Your task to perform on an android device: Set the phone to "Do not disturb". Image 0: 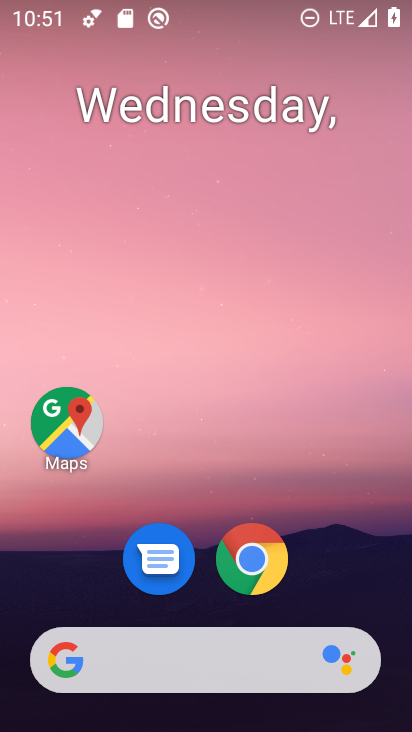
Step 0: drag from (361, 588) to (383, 240)
Your task to perform on an android device: Set the phone to "Do not disturb". Image 1: 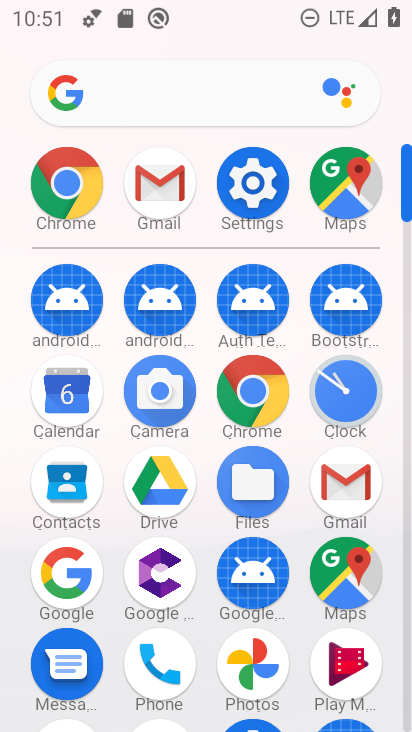
Step 1: click (264, 207)
Your task to perform on an android device: Set the phone to "Do not disturb". Image 2: 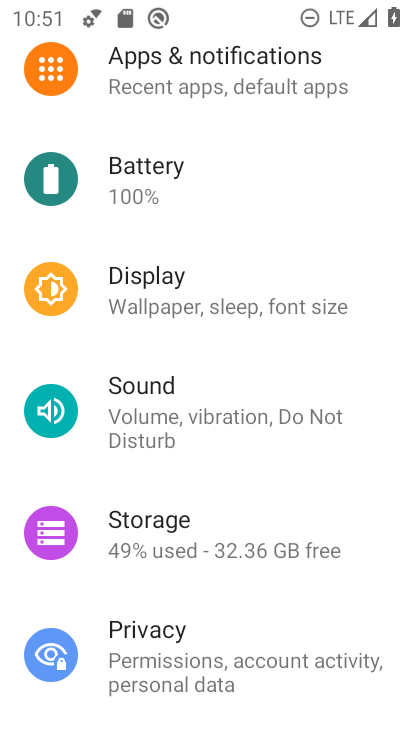
Step 2: drag from (343, 205) to (351, 346)
Your task to perform on an android device: Set the phone to "Do not disturb". Image 3: 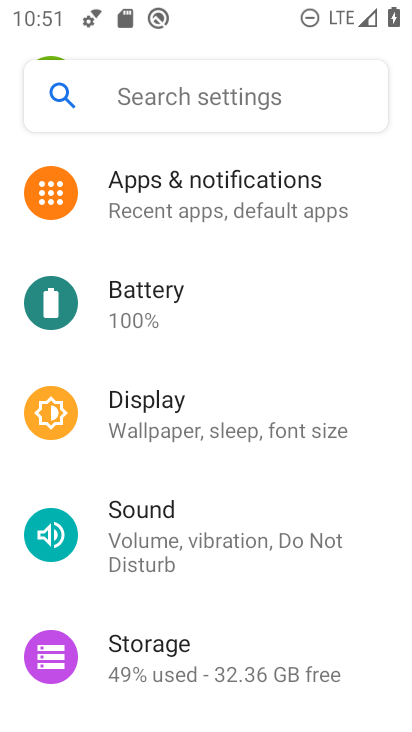
Step 3: drag from (379, 184) to (352, 355)
Your task to perform on an android device: Set the phone to "Do not disturb". Image 4: 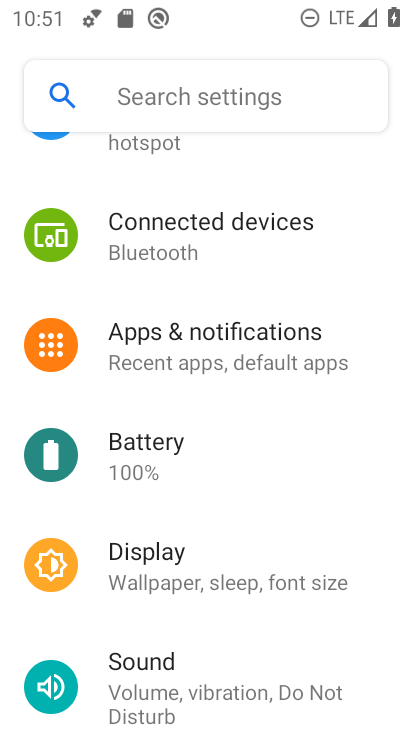
Step 4: drag from (361, 258) to (376, 410)
Your task to perform on an android device: Set the phone to "Do not disturb". Image 5: 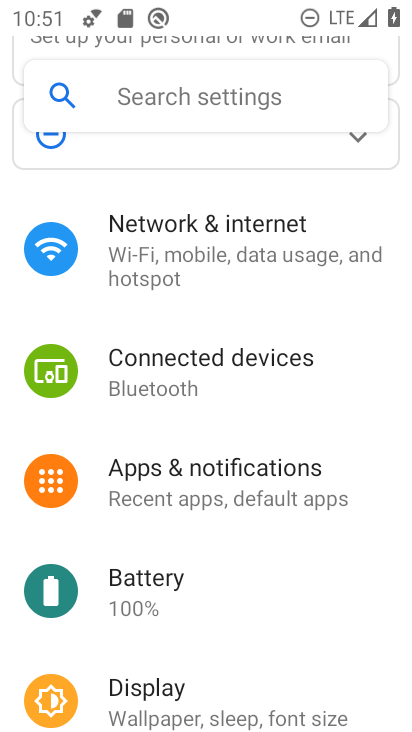
Step 5: drag from (367, 212) to (351, 423)
Your task to perform on an android device: Set the phone to "Do not disturb". Image 6: 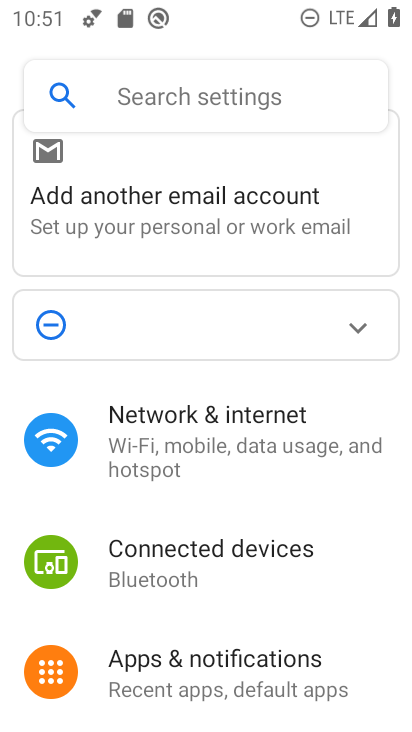
Step 6: drag from (350, 552) to (369, 368)
Your task to perform on an android device: Set the phone to "Do not disturb". Image 7: 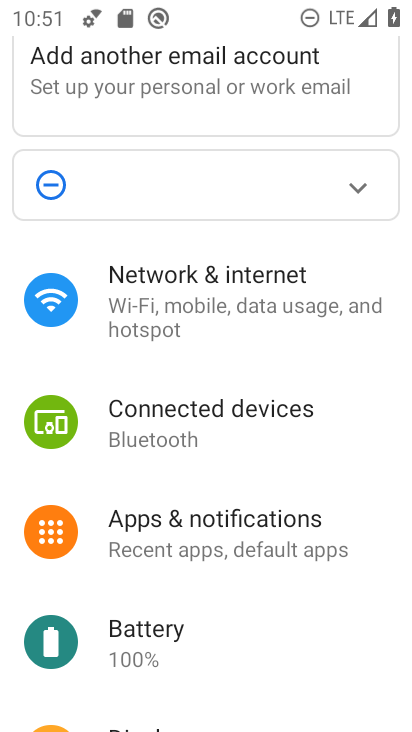
Step 7: drag from (363, 538) to (361, 384)
Your task to perform on an android device: Set the phone to "Do not disturb". Image 8: 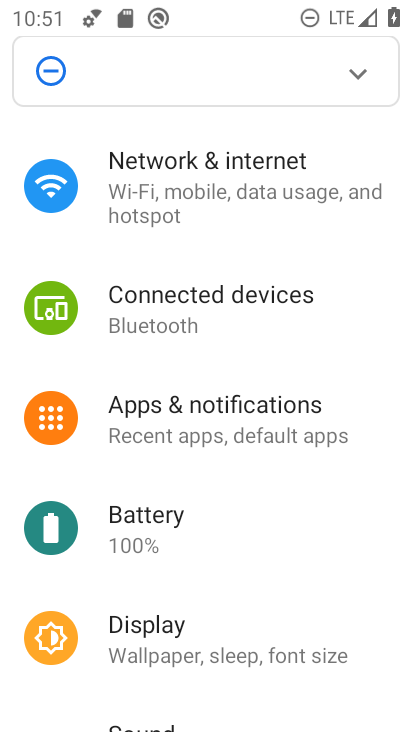
Step 8: drag from (353, 571) to (351, 440)
Your task to perform on an android device: Set the phone to "Do not disturb". Image 9: 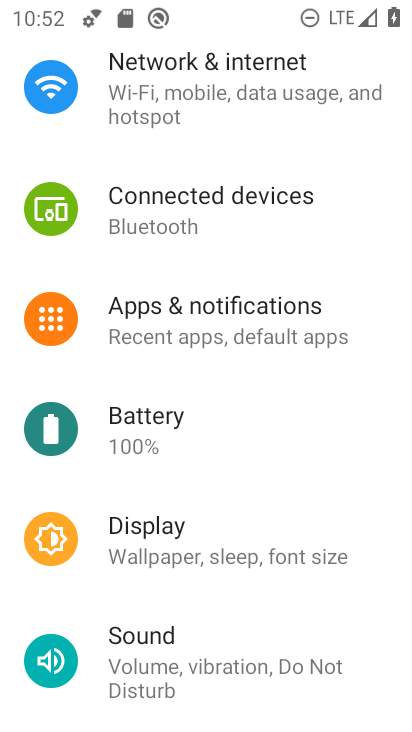
Step 9: drag from (369, 602) to (377, 443)
Your task to perform on an android device: Set the phone to "Do not disturb". Image 10: 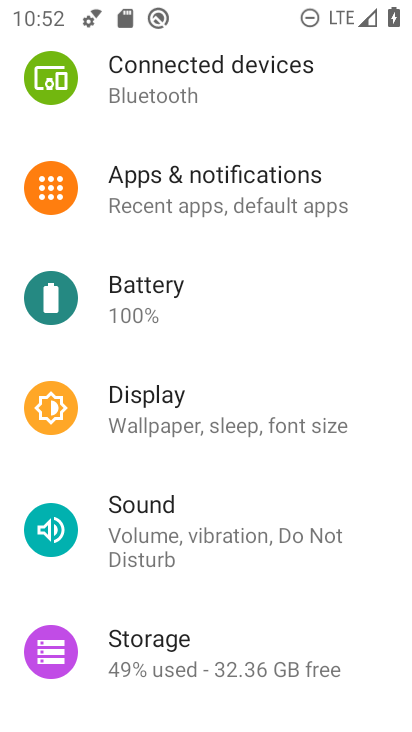
Step 10: drag from (370, 584) to (374, 421)
Your task to perform on an android device: Set the phone to "Do not disturb". Image 11: 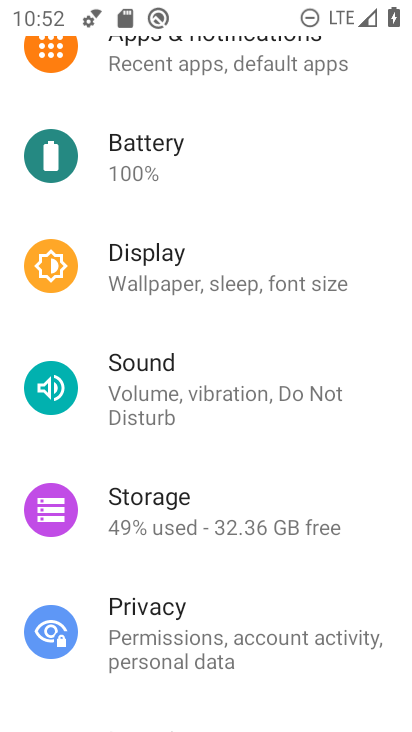
Step 11: click (190, 398)
Your task to perform on an android device: Set the phone to "Do not disturb". Image 12: 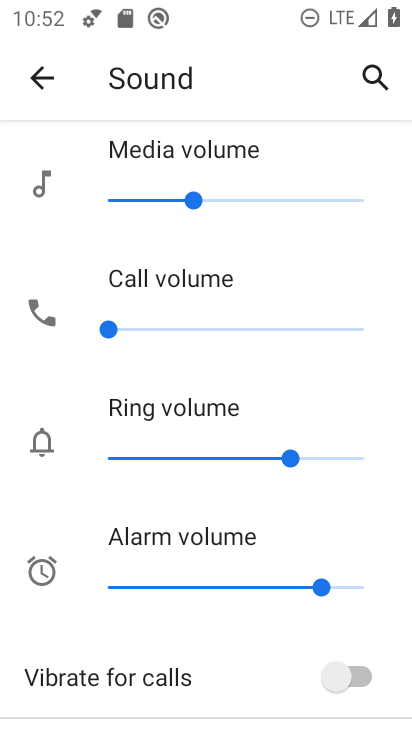
Step 12: task complete